Your task to perform on an android device: Go to display settings Image 0: 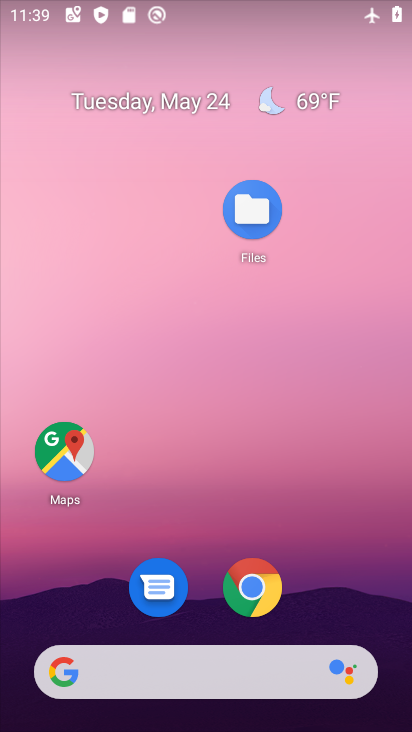
Step 0: drag from (317, 597) to (52, 197)
Your task to perform on an android device: Go to display settings Image 1: 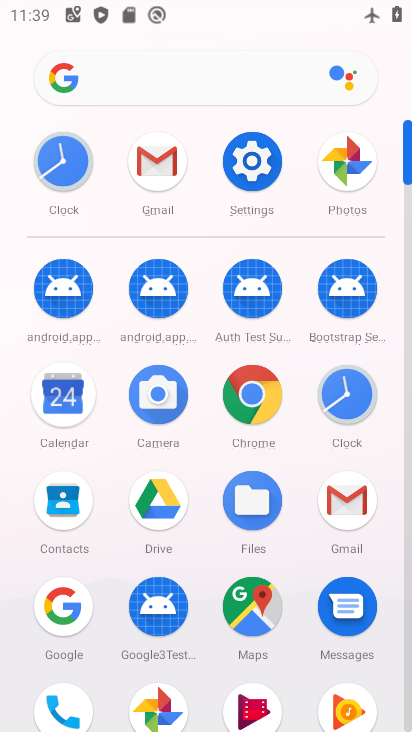
Step 1: click (246, 161)
Your task to perform on an android device: Go to display settings Image 2: 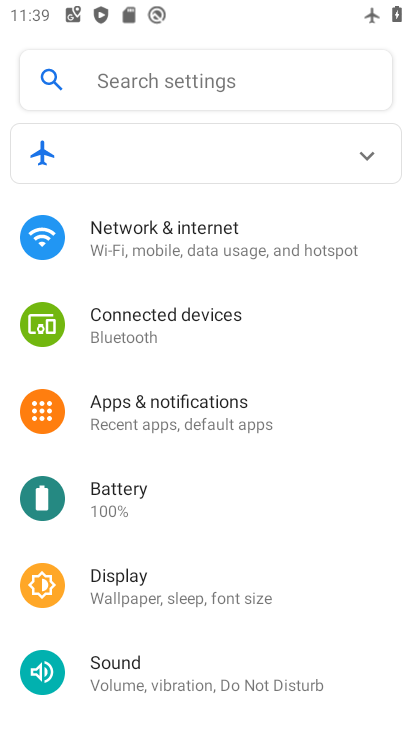
Step 2: click (111, 598)
Your task to perform on an android device: Go to display settings Image 3: 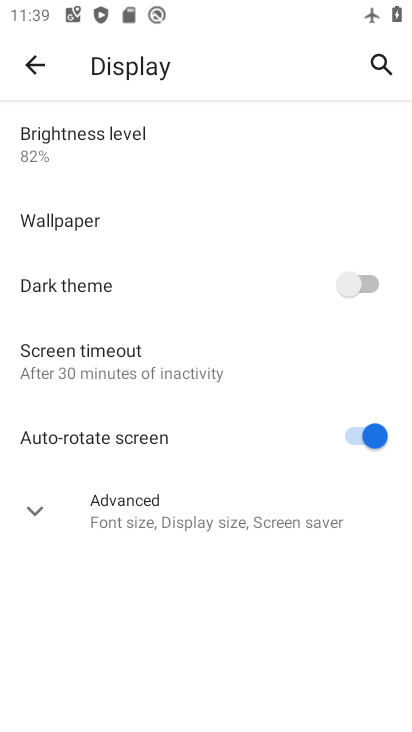
Step 3: click (104, 511)
Your task to perform on an android device: Go to display settings Image 4: 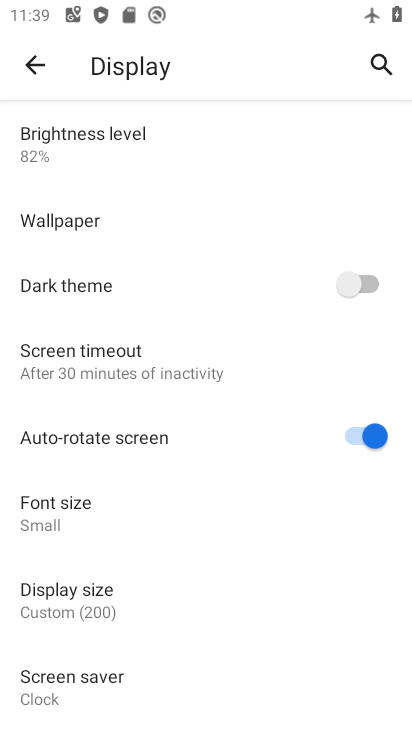
Step 4: task complete